Your task to perform on an android device: empty trash in google photos Image 0: 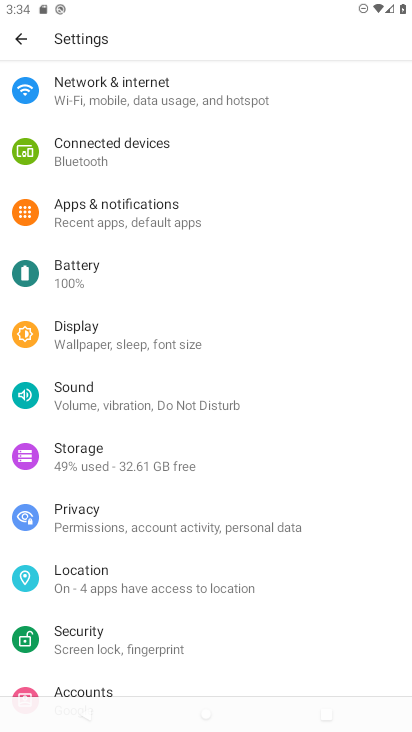
Step 0: press home button
Your task to perform on an android device: empty trash in google photos Image 1: 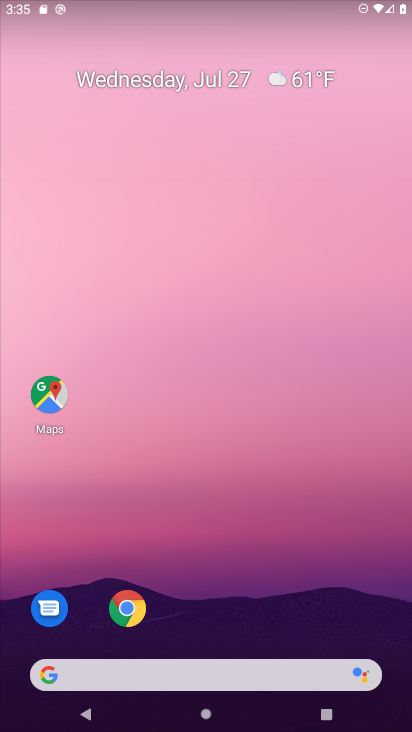
Step 1: drag from (234, 706) to (236, 312)
Your task to perform on an android device: empty trash in google photos Image 2: 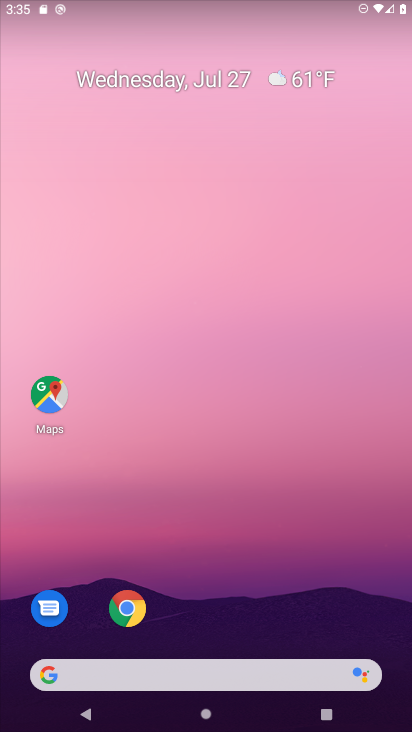
Step 2: drag from (230, 719) to (210, 148)
Your task to perform on an android device: empty trash in google photos Image 3: 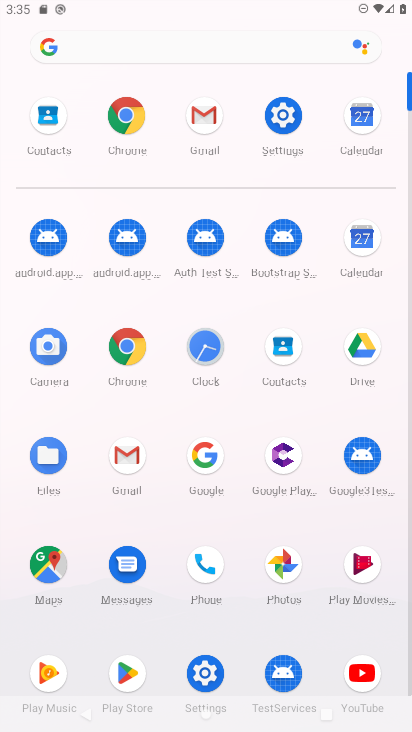
Step 3: click (284, 561)
Your task to perform on an android device: empty trash in google photos Image 4: 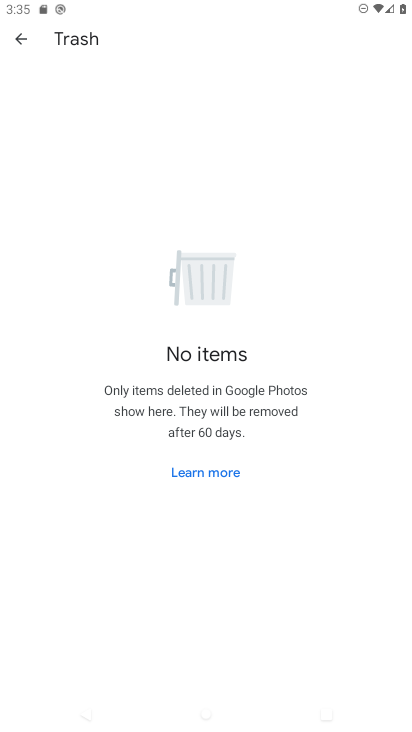
Step 4: task complete